Your task to perform on an android device: Install the Yahoo app Image 0: 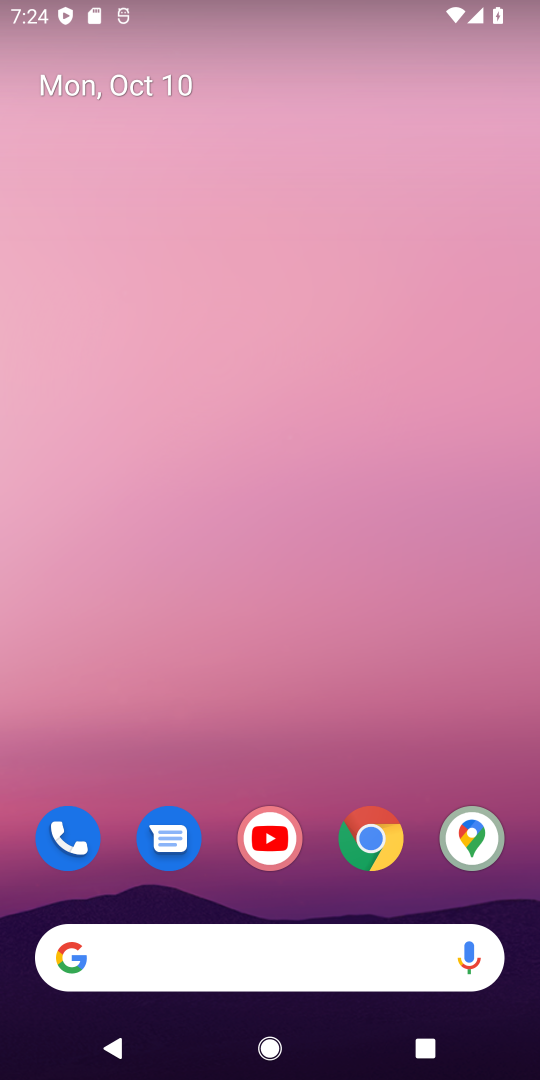
Step 0: drag from (306, 885) to (267, 171)
Your task to perform on an android device: Install the Yahoo app Image 1: 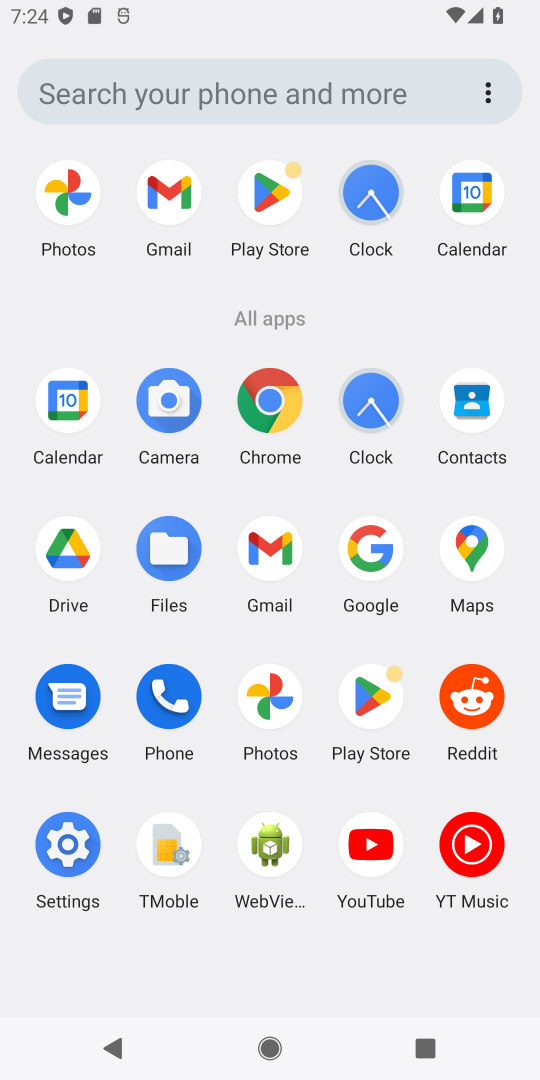
Step 1: click (271, 187)
Your task to perform on an android device: Install the Yahoo app Image 2: 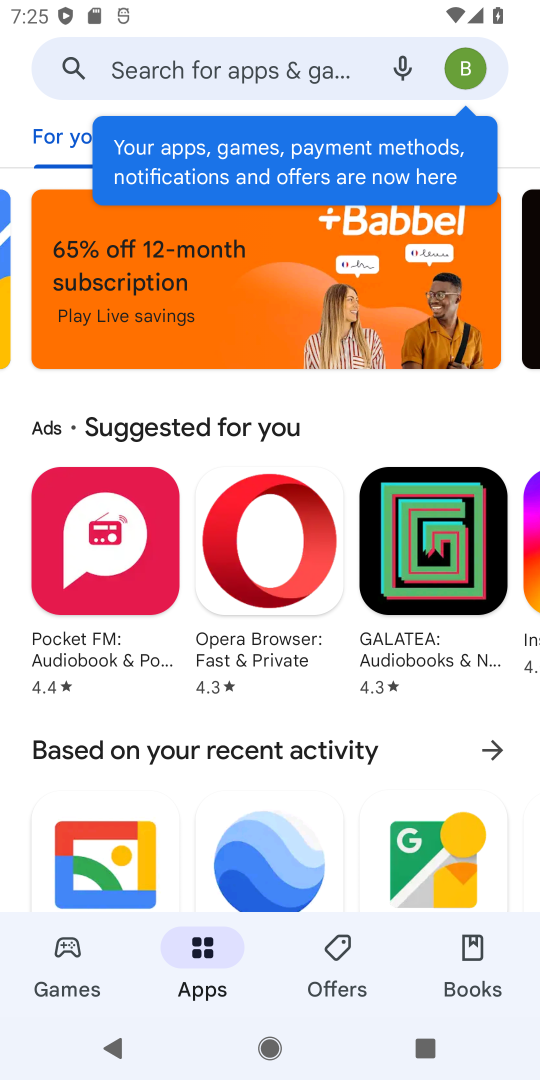
Step 2: click (207, 58)
Your task to perform on an android device: Install the Yahoo app Image 3: 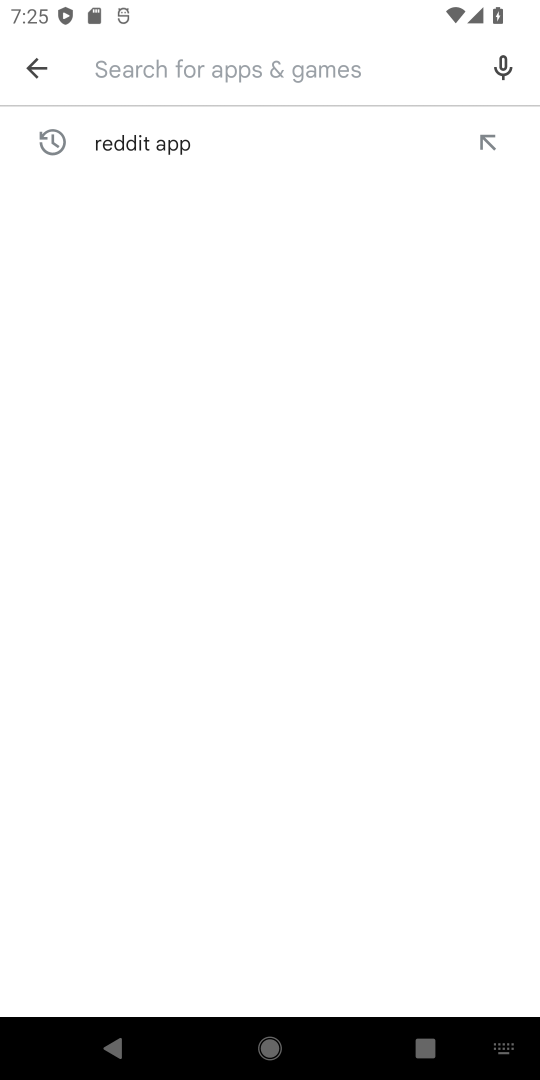
Step 3: type "yahoo app"
Your task to perform on an android device: Install the Yahoo app Image 4: 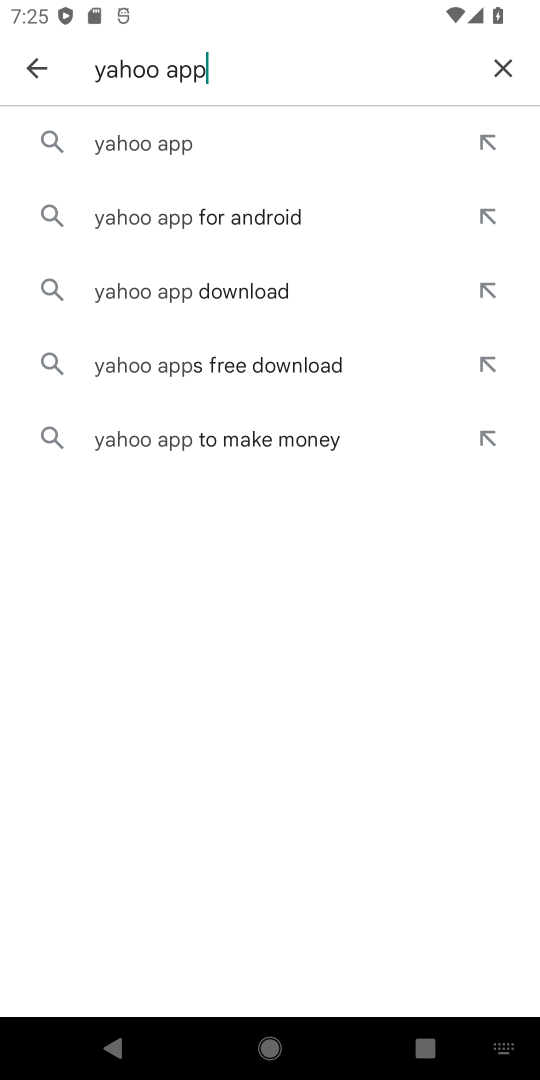
Step 4: click (156, 152)
Your task to perform on an android device: Install the Yahoo app Image 5: 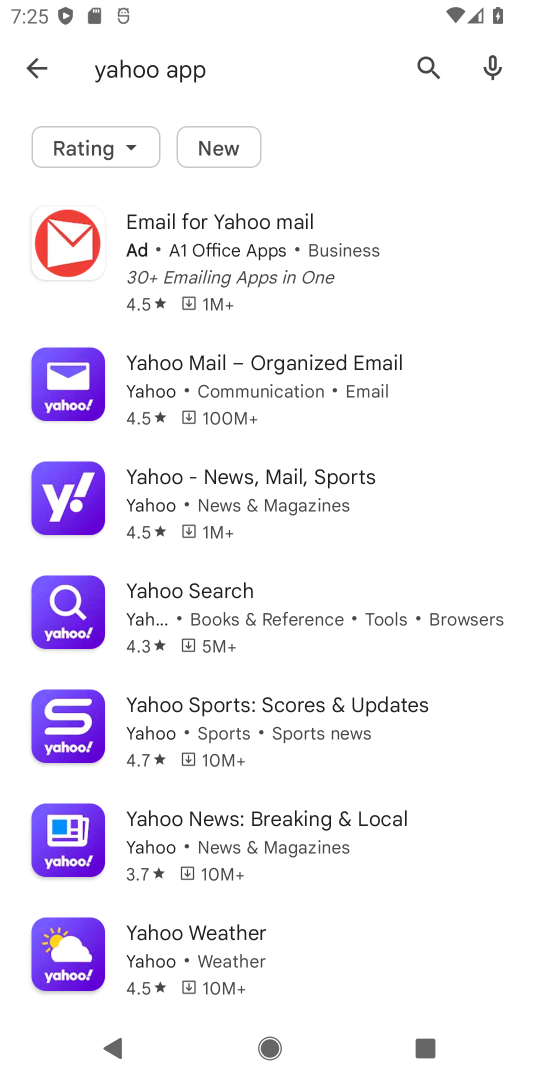
Step 5: click (140, 353)
Your task to perform on an android device: Install the Yahoo app Image 6: 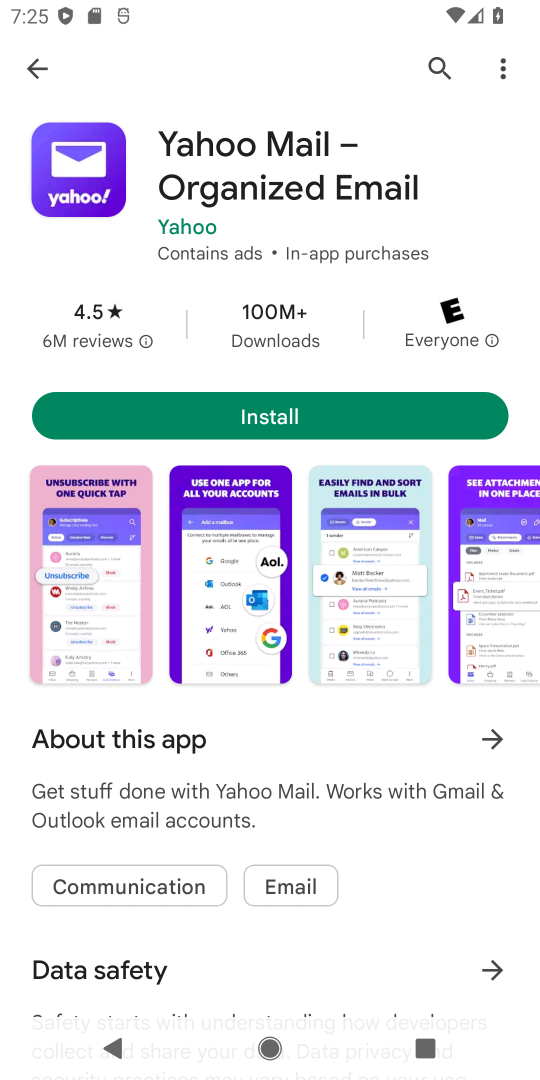
Step 6: click (272, 422)
Your task to perform on an android device: Install the Yahoo app Image 7: 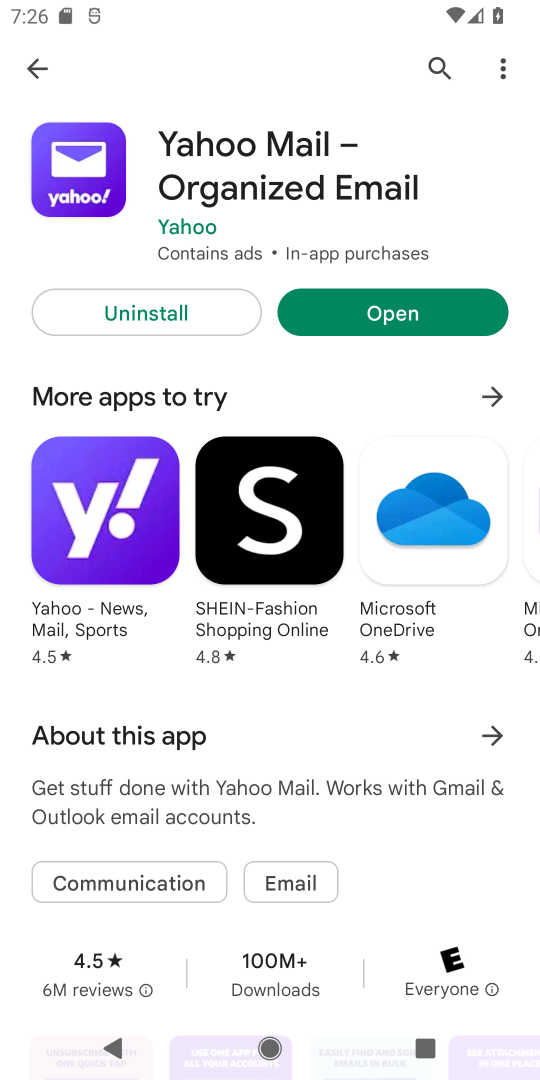
Step 7: task complete